Your task to perform on an android device: Add duracell triple a to the cart on walmart, then select checkout. Image 0: 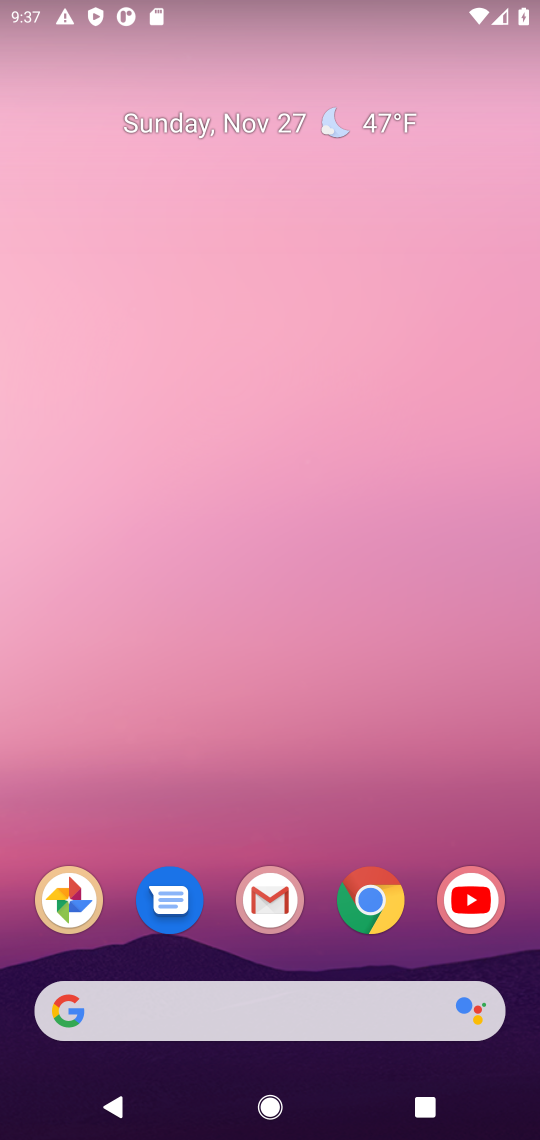
Step 0: click (377, 905)
Your task to perform on an android device: Add duracell triple a to the cart on walmart, then select checkout. Image 1: 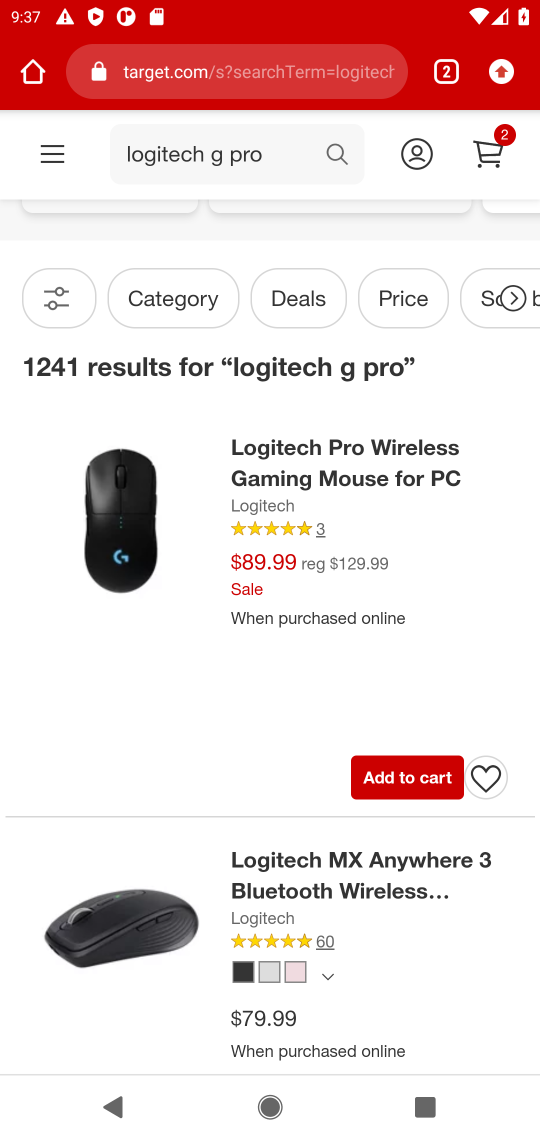
Step 1: click (200, 82)
Your task to perform on an android device: Add duracell triple a to the cart on walmart, then select checkout. Image 2: 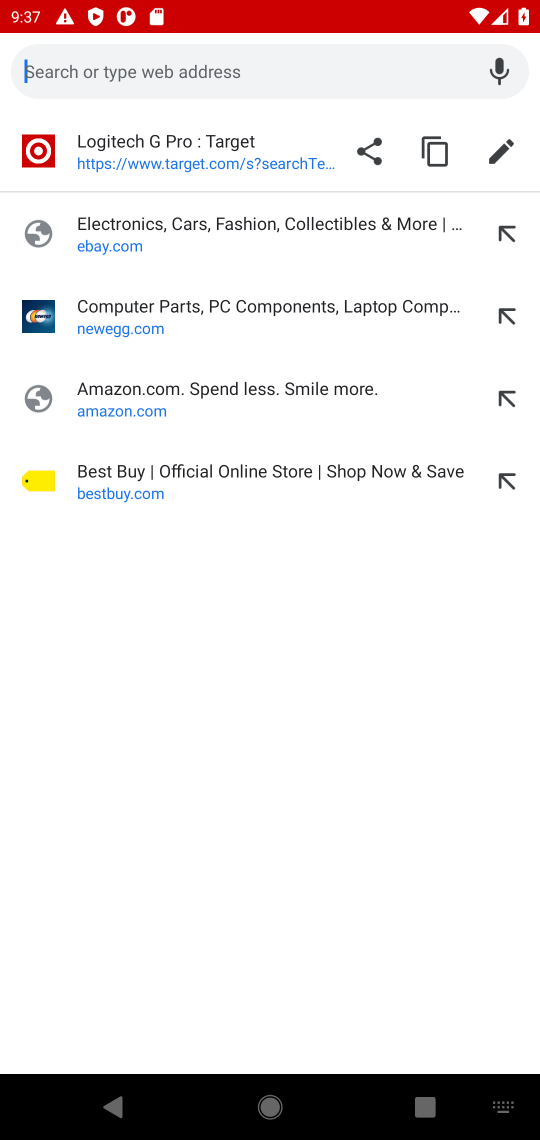
Step 2: type "walmart.com"
Your task to perform on an android device: Add duracell triple a to the cart on walmart, then select checkout. Image 3: 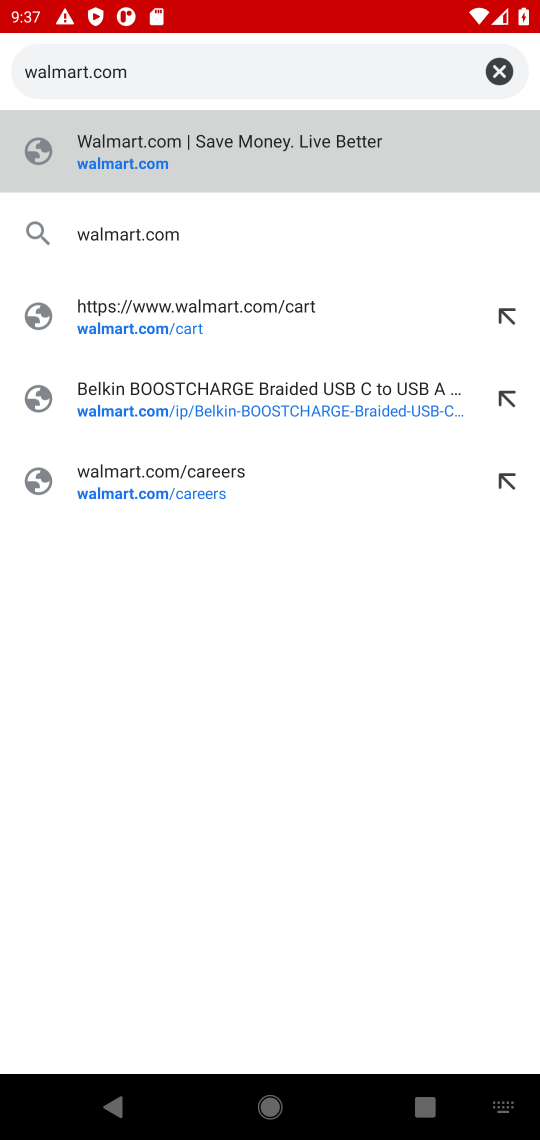
Step 3: click (102, 168)
Your task to perform on an android device: Add duracell triple a to the cart on walmart, then select checkout. Image 4: 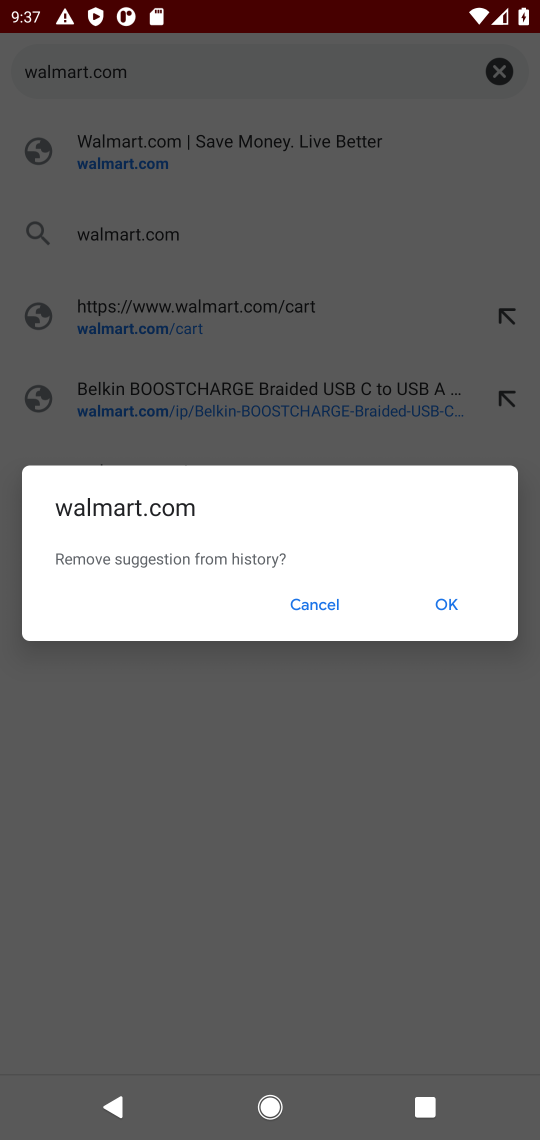
Step 4: click (343, 599)
Your task to perform on an android device: Add duracell triple a to the cart on walmart, then select checkout. Image 5: 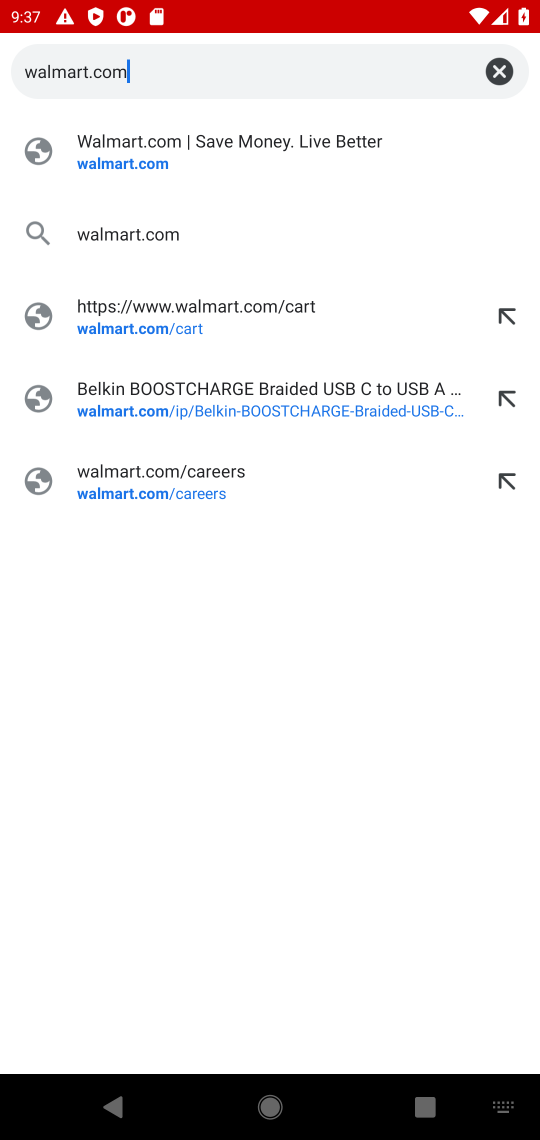
Step 5: click (111, 165)
Your task to perform on an android device: Add duracell triple a to the cart on walmart, then select checkout. Image 6: 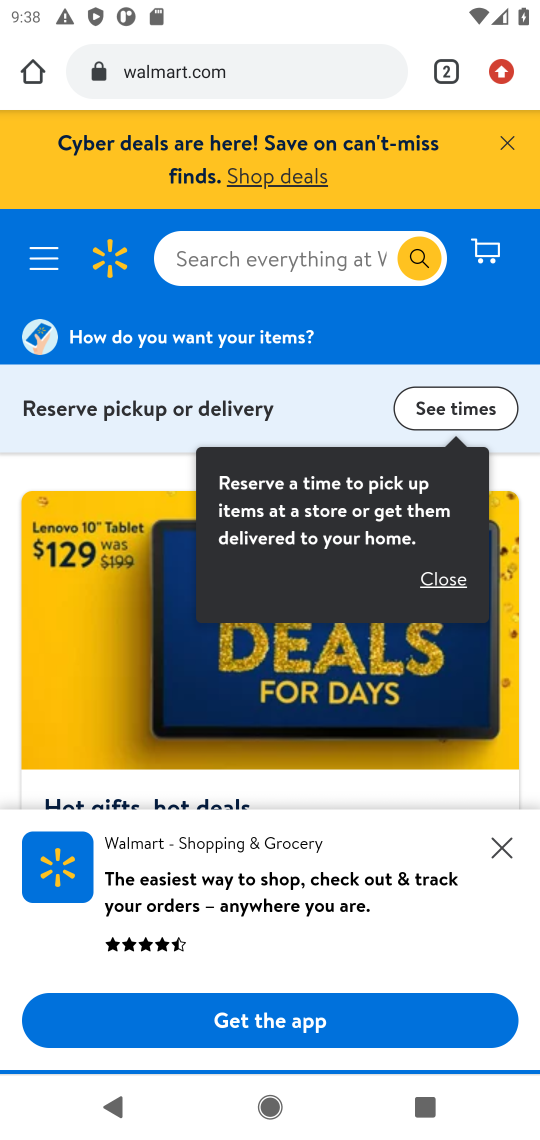
Step 6: click (227, 256)
Your task to perform on an android device: Add duracell triple a to the cart on walmart, then select checkout. Image 7: 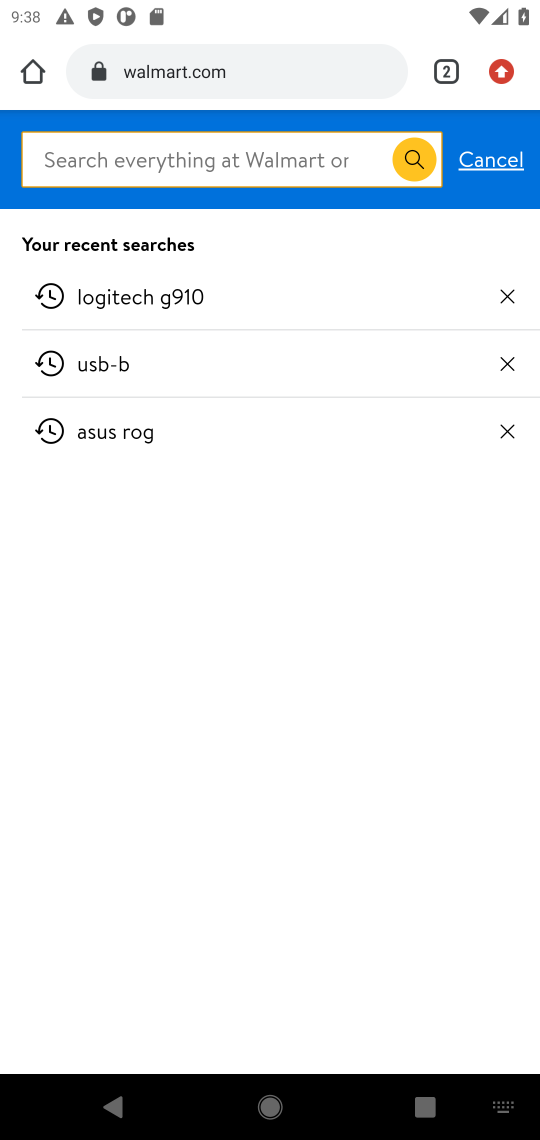
Step 7: type "duracell triple a"
Your task to perform on an android device: Add duracell triple a to the cart on walmart, then select checkout. Image 8: 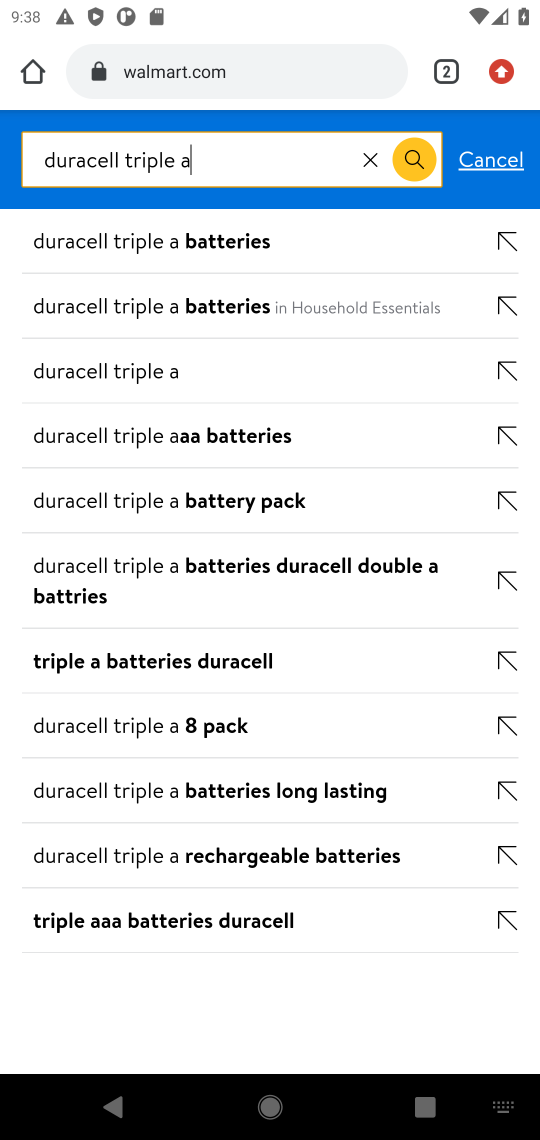
Step 8: click (140, 253)
Your task to perform on an android device: Add duracell triple a to the cart on walmart, then select checkout. Image 9: 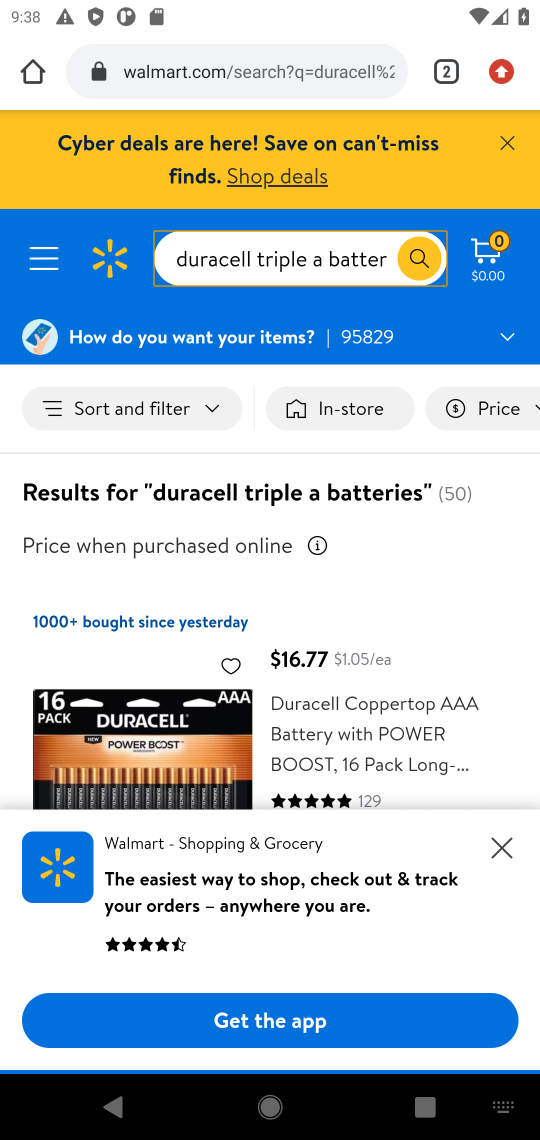
Step 9: drag from (219, 734) to (168, 399)
Your task to perform on an android device: Add duracell triple a to the cart on walmart, then select checkout. Image 10: 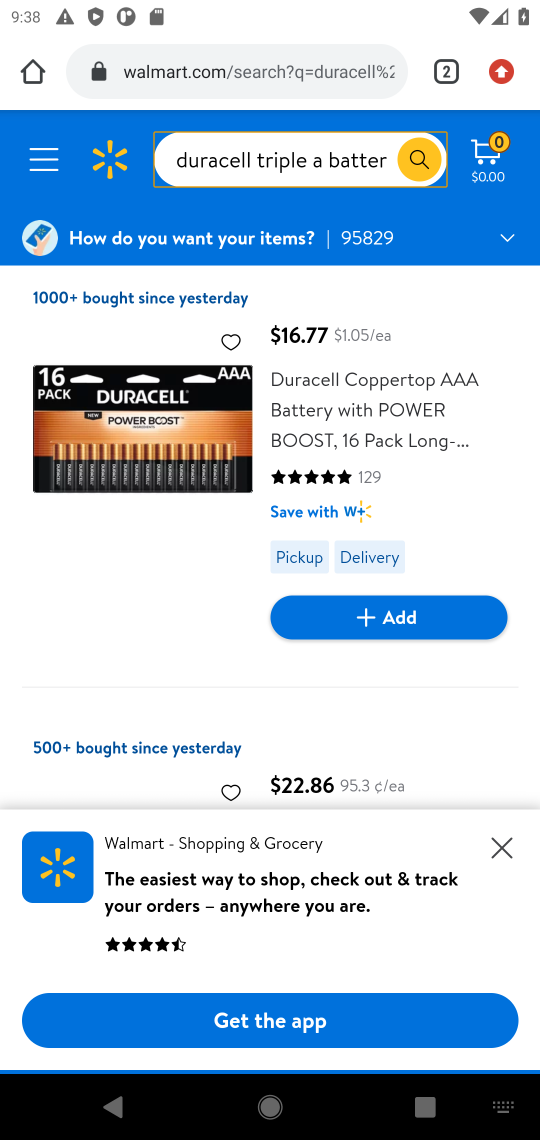
Step 10: click (385, 621)
Your task to perform on an android device: Add duracell triple a to the cart on walmart, then select checkout. Image 11: 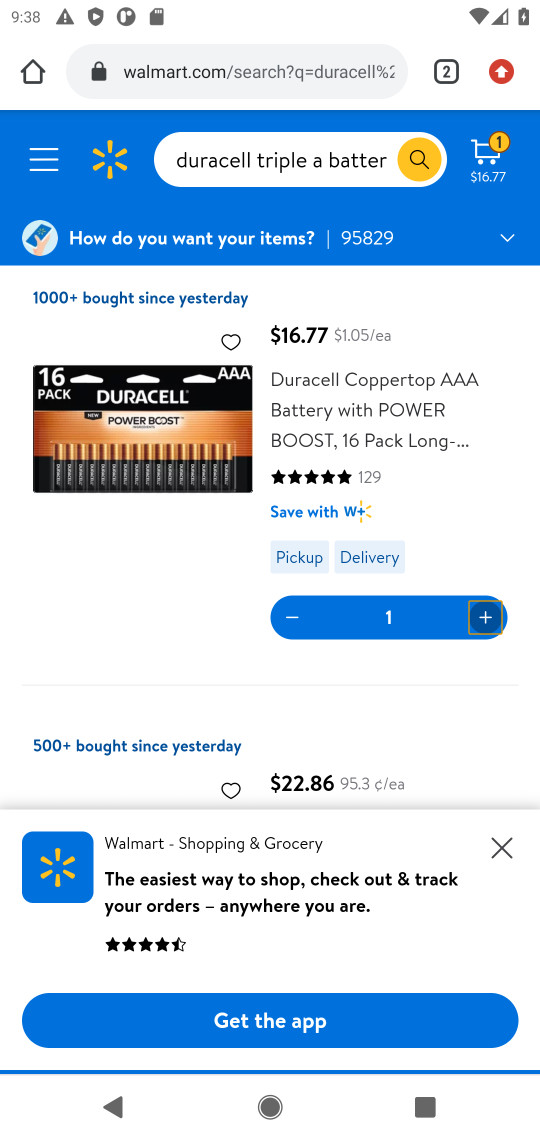
Step 11: click (489, 161)
Your task to perform on an android device: Add duracell triple a to the cart on walmart, then select checkout. Image 12: 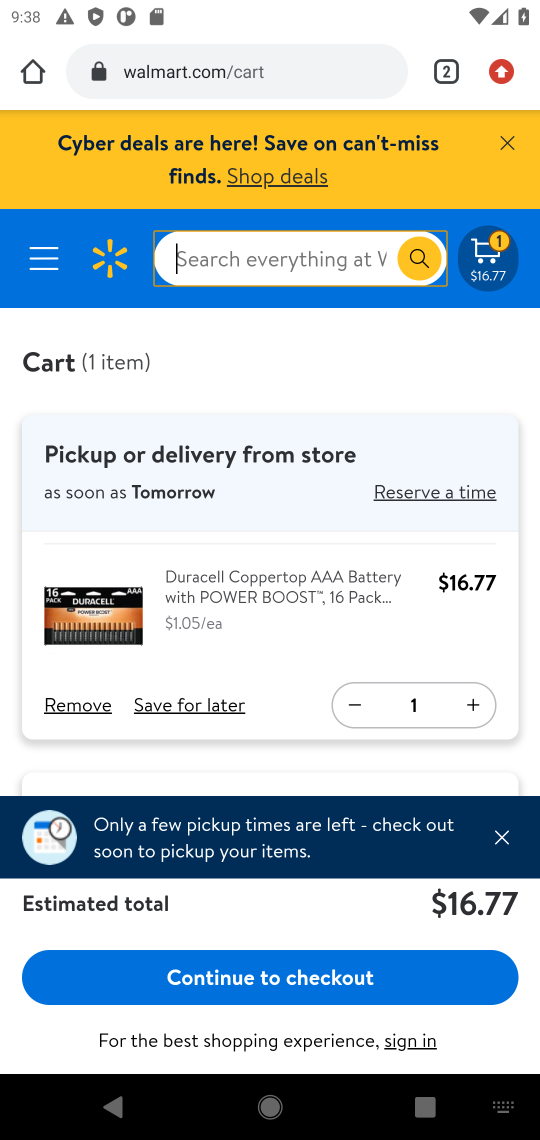
Step 12: click (239, 984)
Your task to perform on an android device: Add duracell triple a to the cart on walmart, then select checkout. Image 13: 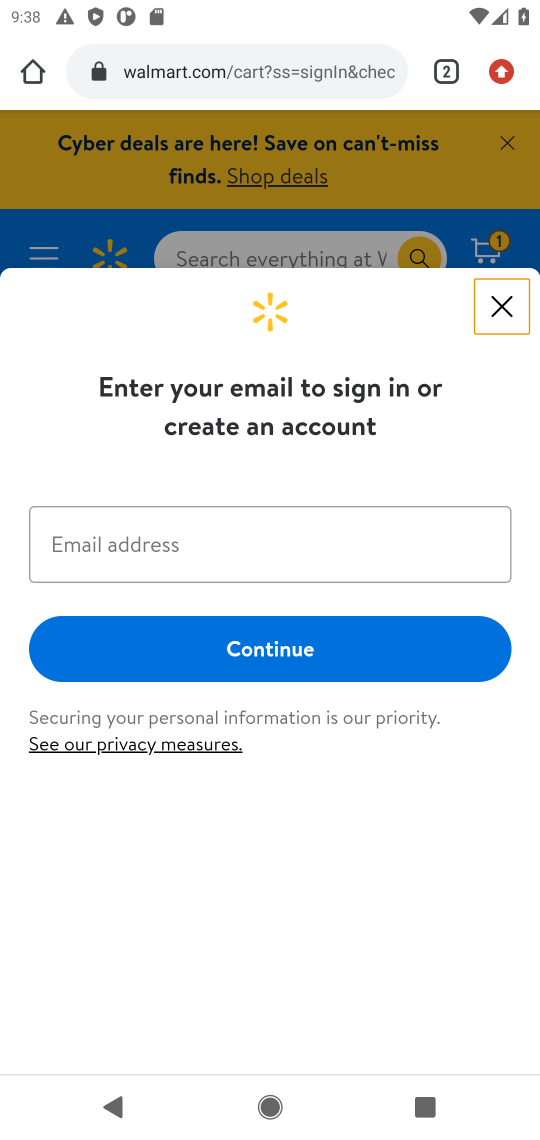
Step 13: task complete